Your task to perform on an android device: add a contact in the contacts app Image 0: 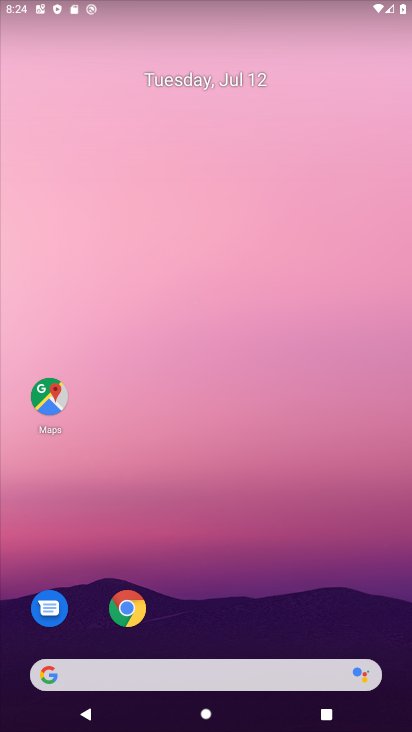
Step 0: drag from (168, 608) to (240, 111)
Your task to perform on an android device: add a contact in the contacts app Image 1: 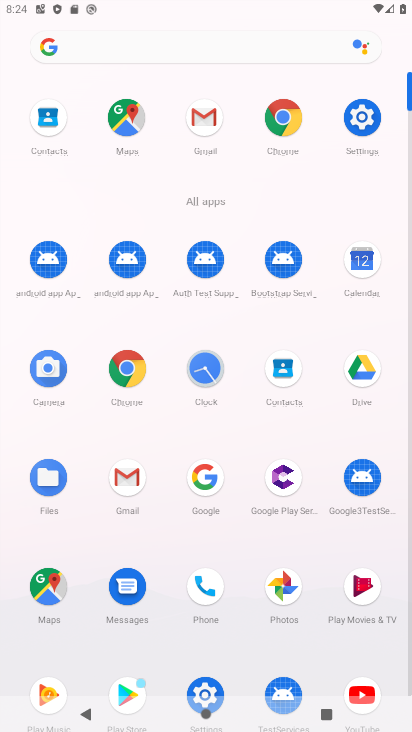
Step 1: click (272, 378)
Your task to perform on an android device: add a contact in the contacts app Image 2: 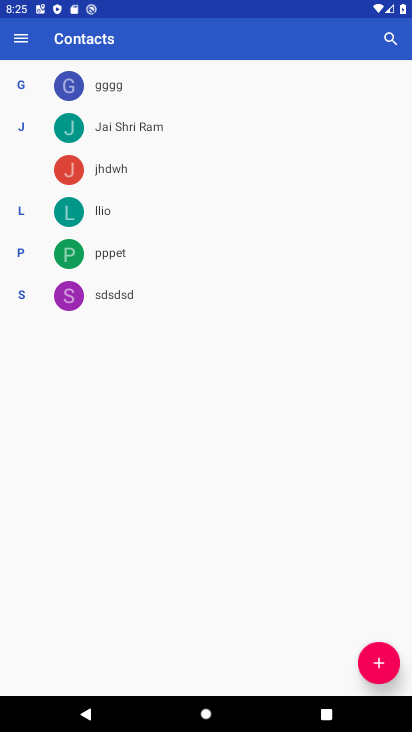
Step 2: click (379, 670)
Your task to perform on an android device: add a contact in the contacts app Image 3: 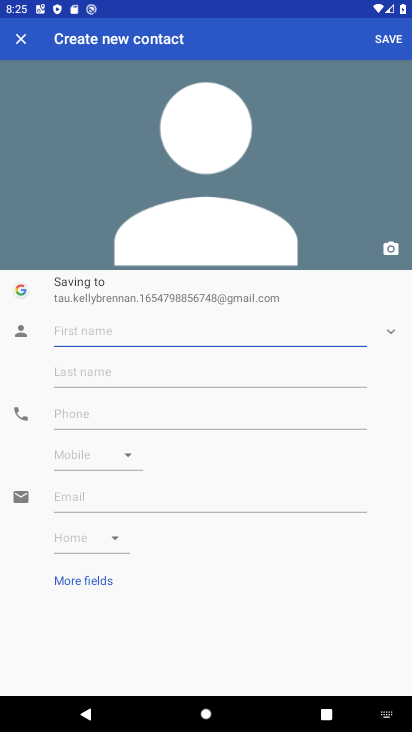
Step 3: type "ujhgv"
Your task to perform on an android device: add a contact in the contacts app Image 4: 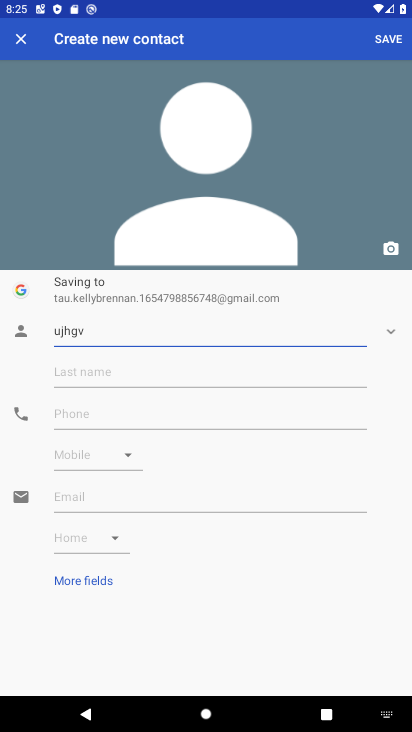
Step 4: click (88, 413)
Your task to perform on an android device: add a contact in the contacts app Image 5: 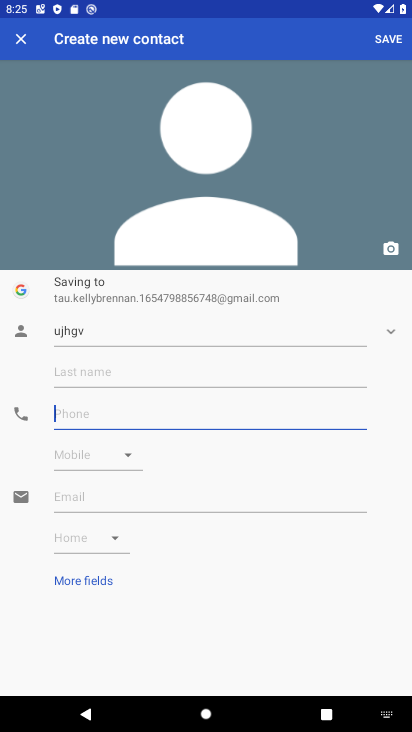
Step 5: type "9876543"
Your task to perform on an android device: add a contact in the contacts app Image 6: 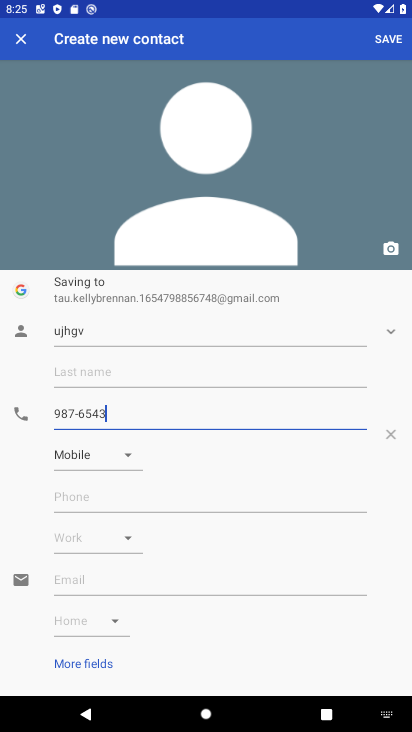
Step 6: click (396, 42)
Your task to perform on an android device: add a contact in the contacts app Image 7: 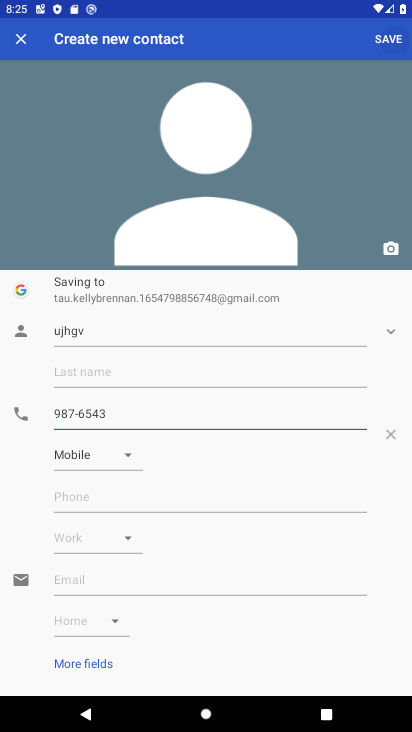
Step 7: click (396, 42)
Your task to perform on an android device: add a contact in the contacts app Image 8: 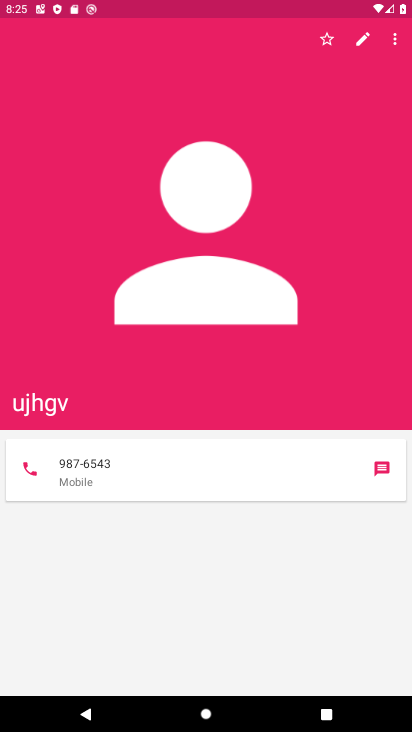
Step 8: task complete